Your task to perform on an android device: Go to sound settings Image 0: 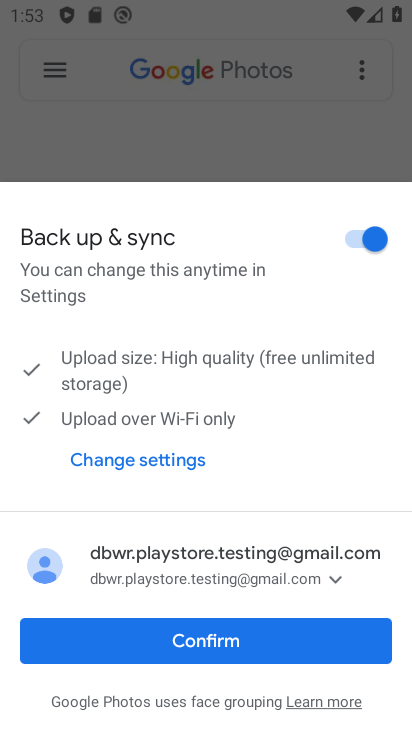
Step 0: click (124, 633)
Your task to perform on an android device: Go to sound settings Image 1: 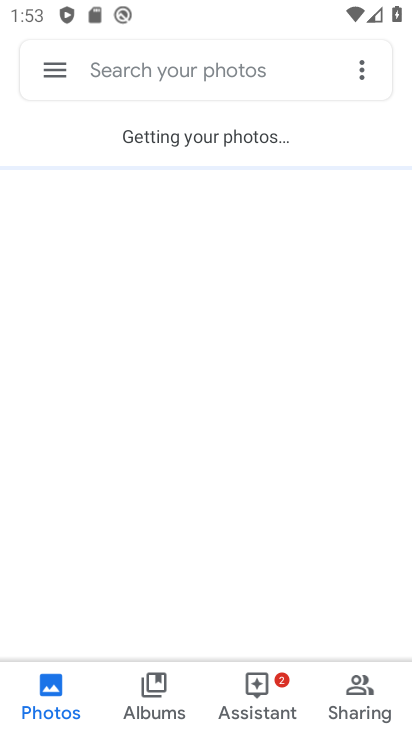
Step 1: press home button
Your task to perform on an android device: Go to sound settings Image 2: 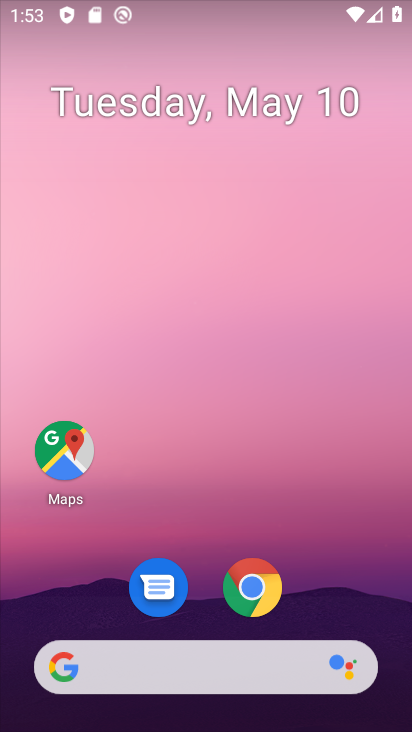
Step 2: drag from (365, 587) to (384, 212)
Your task to perform on an android device: Go to sound settings Image 3: 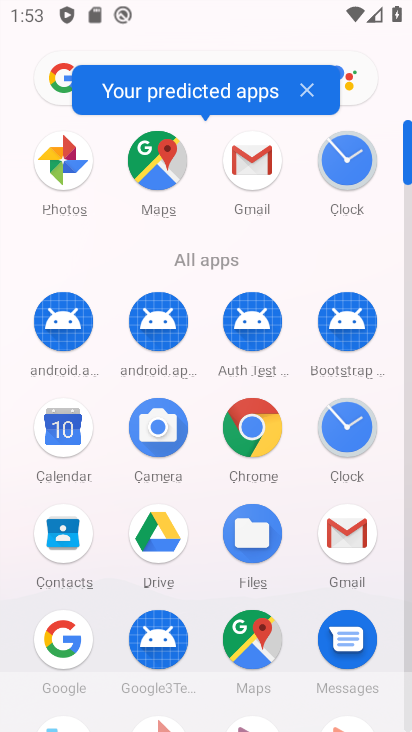
Step 3: drag from (192, 580) to (240, 240)
Your task to perform on an android device: Go to sound settings Image 4: 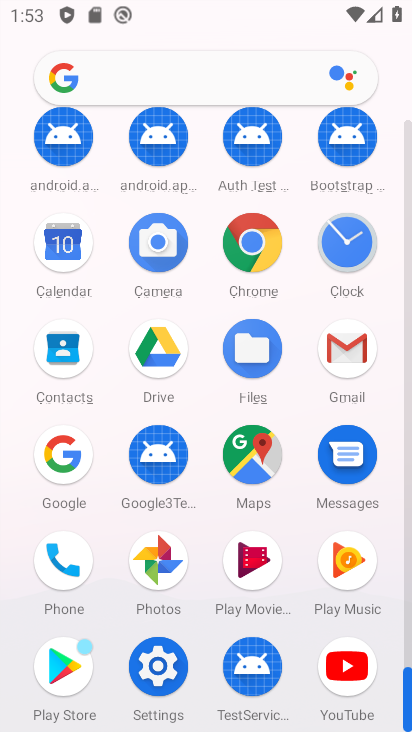
Step 4: click (154, 664)
Your task to perform on an android device: Go to sound settings Image 5: 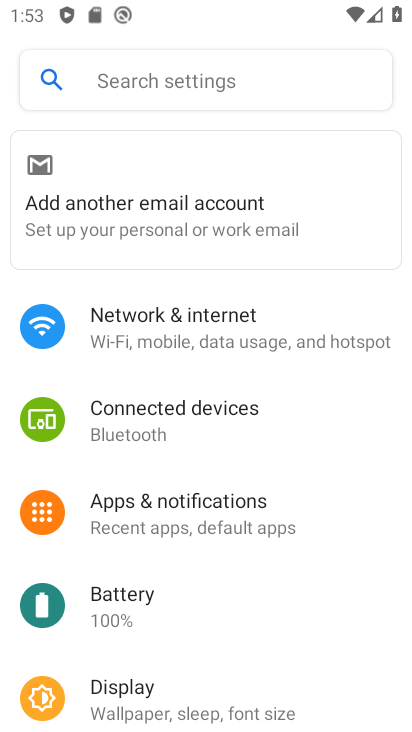
Step 5: drag from (209, 625) to (289, 296)
Your task to perform on an android device: Go to sound settings Image 6: 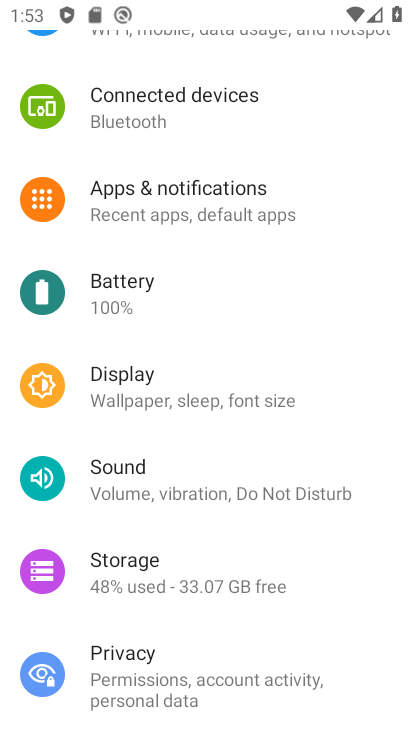
Step 6: drag from (243, 597) to (318, 332)
Your task to perform on an android device: Go to sound settings Image 7: 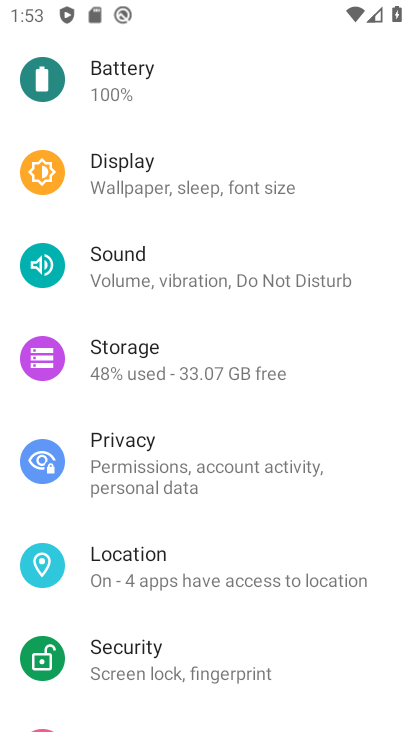
Step 7: drag from (233, 587) to (309, 266)
Your task to perform on an android device: Go to sound settings Image 8: 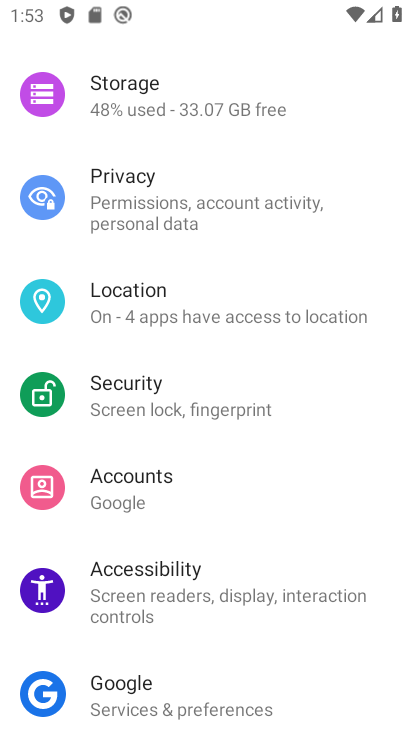
Step 8: drag from (215, 604) to (287, 277)
Your task to perform on an android device: Go to sound settings Image 9: 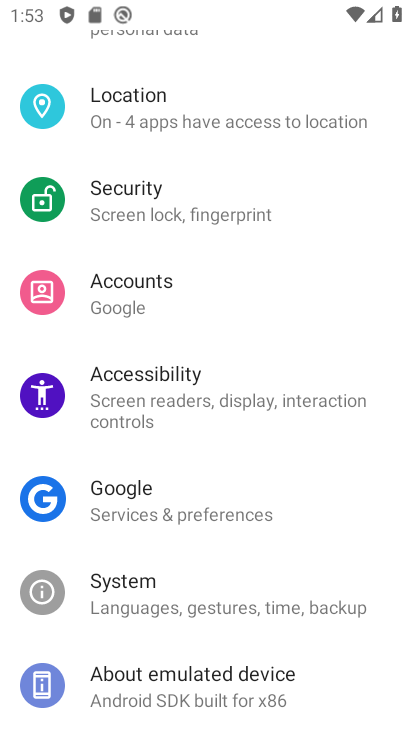
Step 9: drag from (225, 107) to (250, 567)
Your task to perform on an android device: Go to sound settings Image 10: 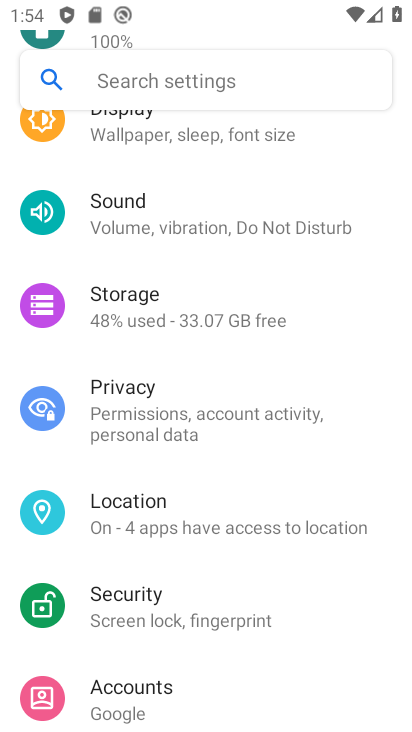
Step 10: click (249, 234)
Your task to perform on an android device: Go to sound settings Image 11: 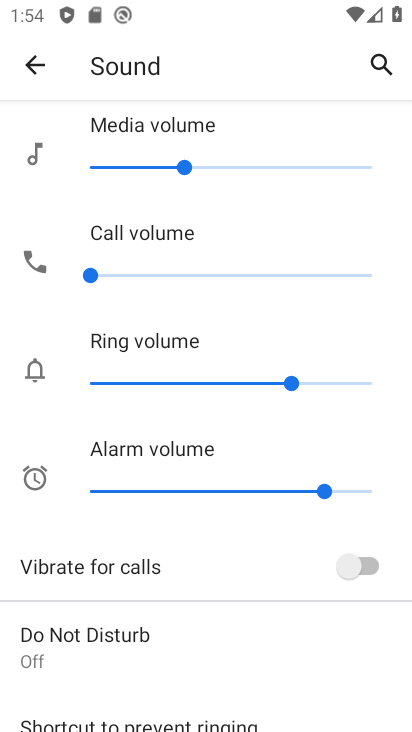
Step 11: task complete